Your task to perform on an android device: clear all cookies in the chrome app Image 0: 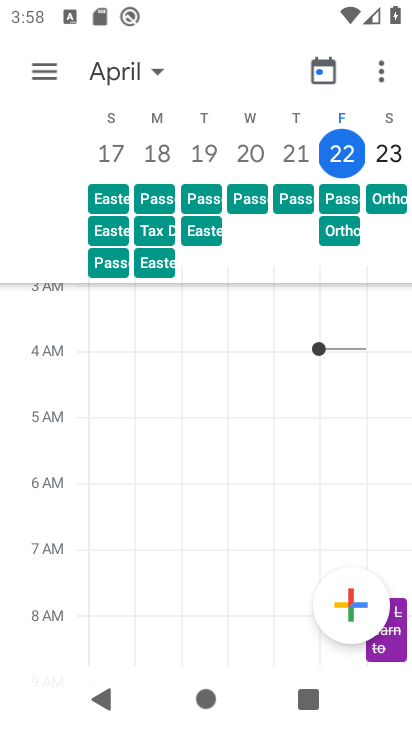
Step 0: press home button
Your task to perform on an android device: clear all cookies in the chrome app Image 1: 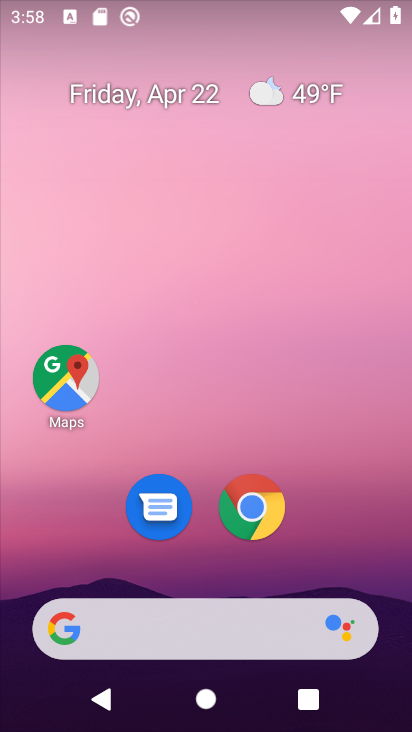
Step 1: click (253, 508)
Your task to perform on an android device: clear all cookies in the chrome app Image 2: 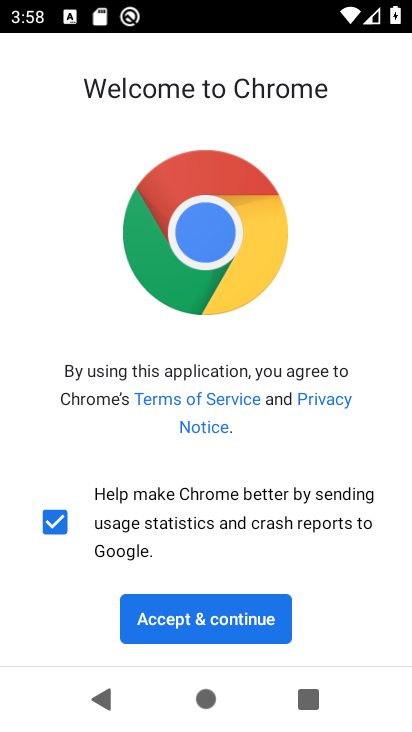
Step 2: click (204, 616)
Your task to perform on an android device: clear all cookies in the chrome app Image 3: 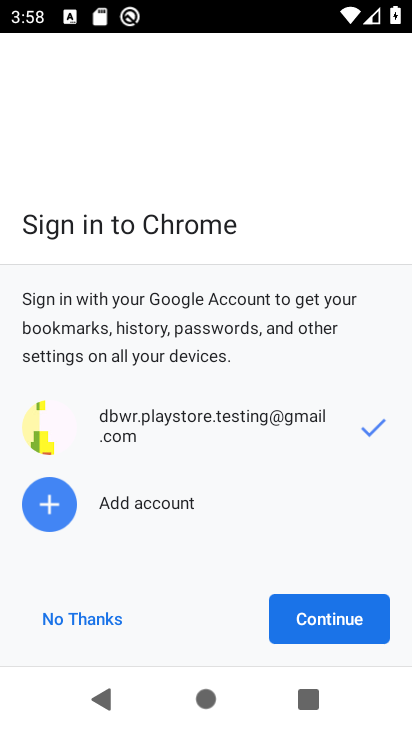
Step 3: click (331, 610)
Your task to perform on an android device: clear all cookies in the chrome app Image 4: 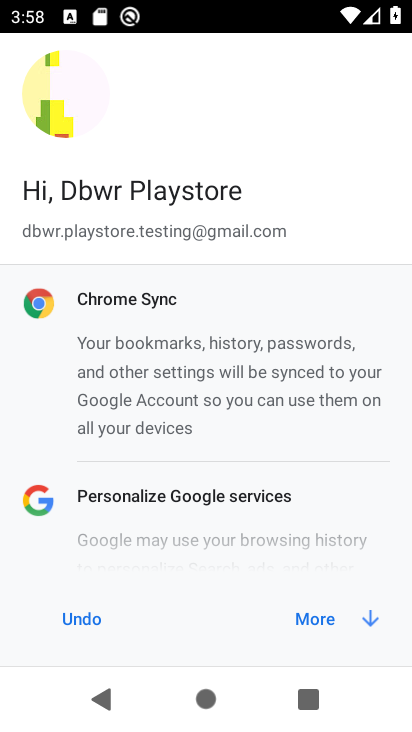
Step 4: click (317, 618)
Your task to perform on an android device: clear all cookies in the chrome app Image 5: 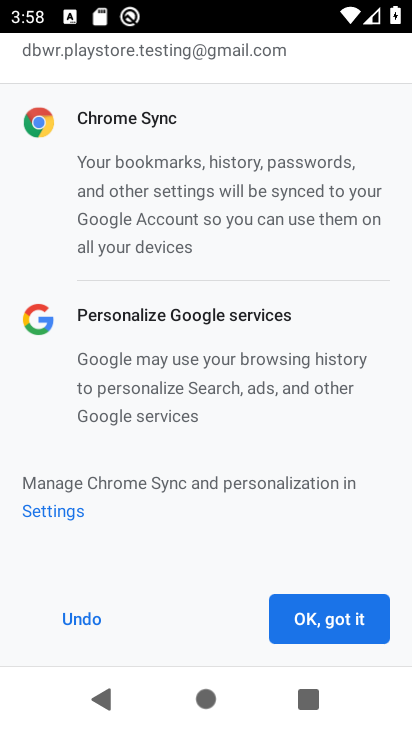
Step 5: click (317, 618)
Your task to perform on an android device: clear all cookies in the chrome app Image 6: 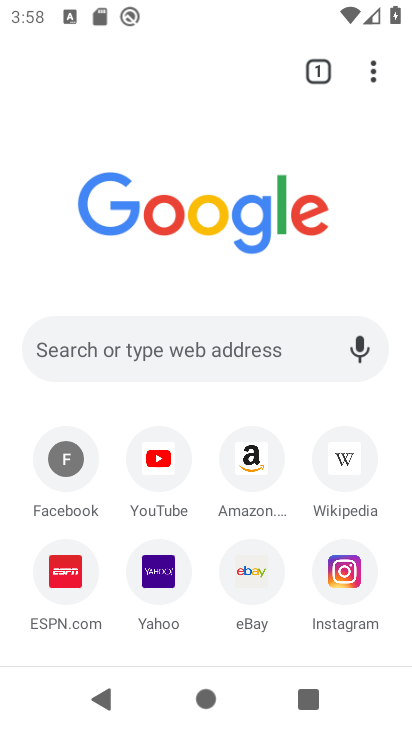
Step 6: click (369, 75)
Your task to perform on an android device: clear all cookies in the chrome app Image 7: 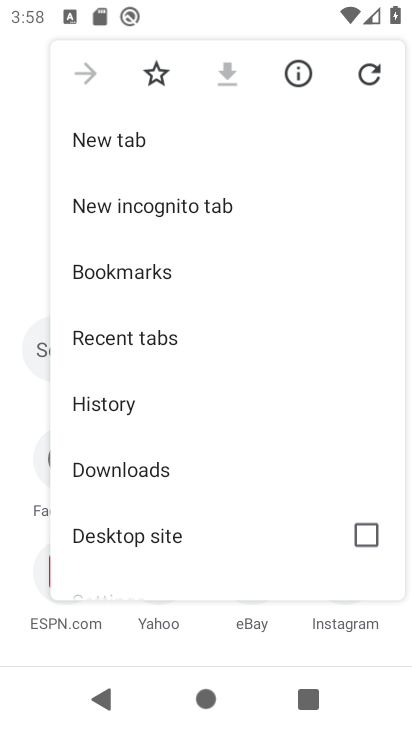
Step 7: click (97, 399)
Your task to perform on an android device: clear all cookies in the chrome app Image 8: 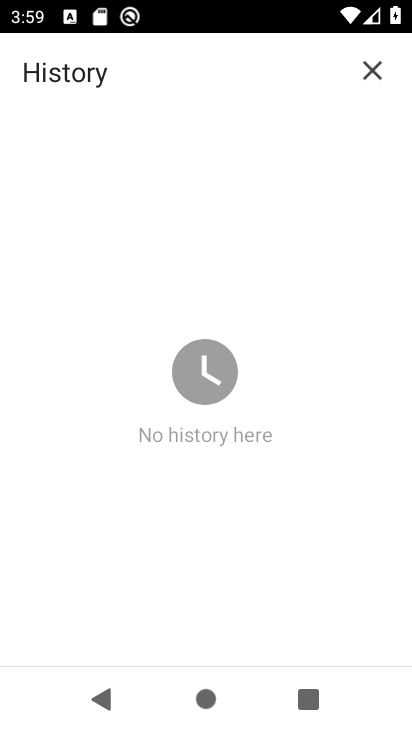
Step 8: task complete